Your task to perform on an android device: change alarm snooze length Image 0: 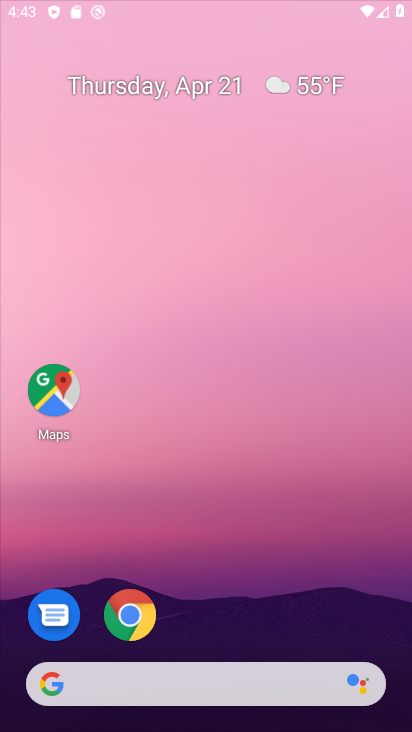
Step 0: drag from (277, 554) to (222, 10)
Your task to perform on an android device: change alarm snooze length Image 1: 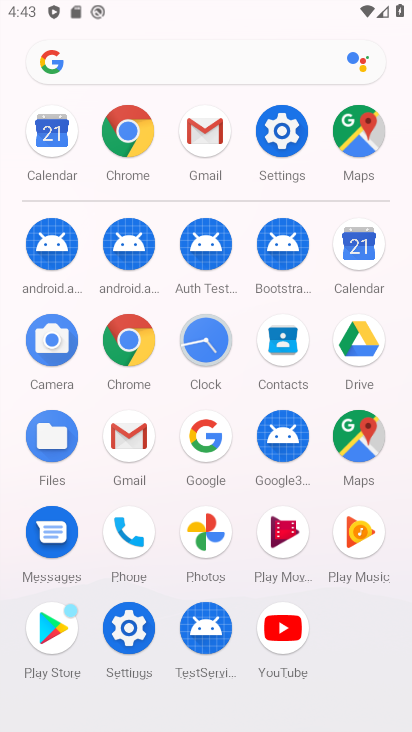
Step 1: drag from (16, 516) to (5, 279)
Your task to perform on an android device: change alarm snooze length Image 2: 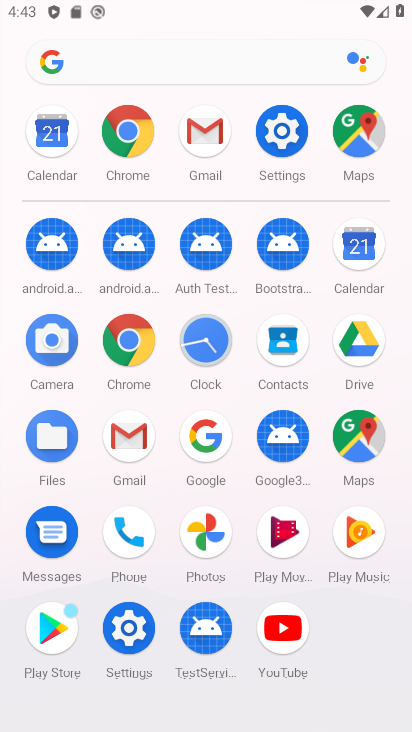
Step 2: click (199, 333)
Your task to perform on an android device: change alarm snooze length Image 3: 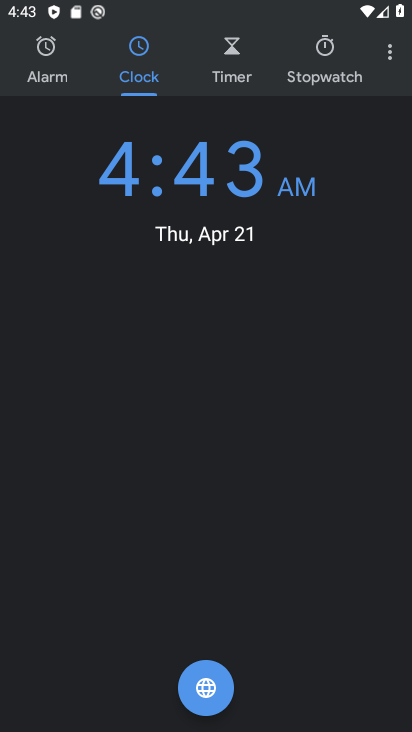
Step 3: click (51, 66)
Your task to perform on an android device: change alarm snooze length Image 4: 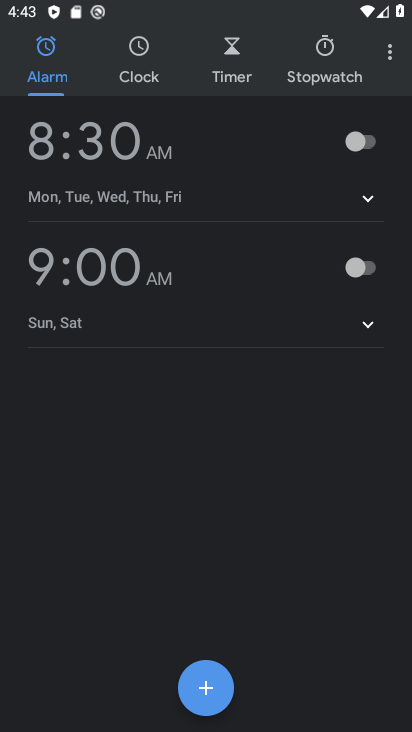
Step 4: click (392, 56)
Your task to perform on an android device: change alarm snooze length Image 5: 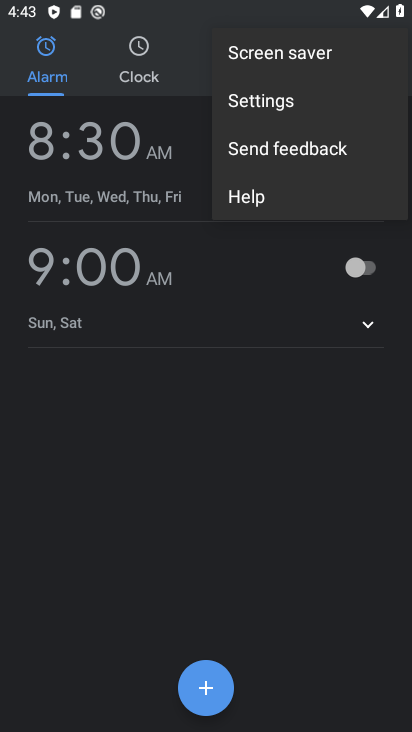
Step 5: click (323, 99)
Your task to perform on an android device: change alarm snooze length Image 6: 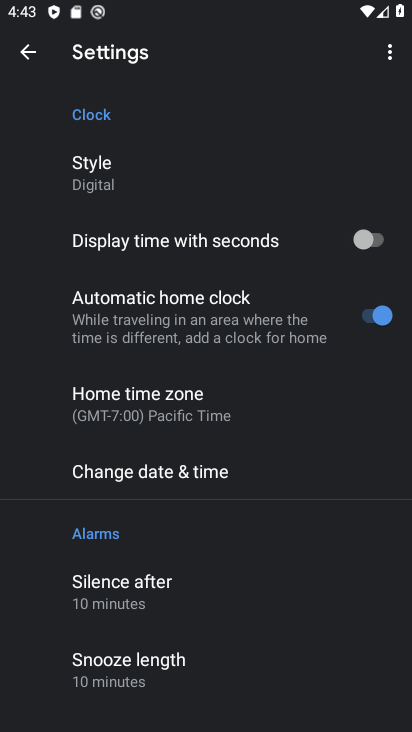
Step 6: click (157, 666)
Your task to perform on an android device: change alarm snooze length Image 7: 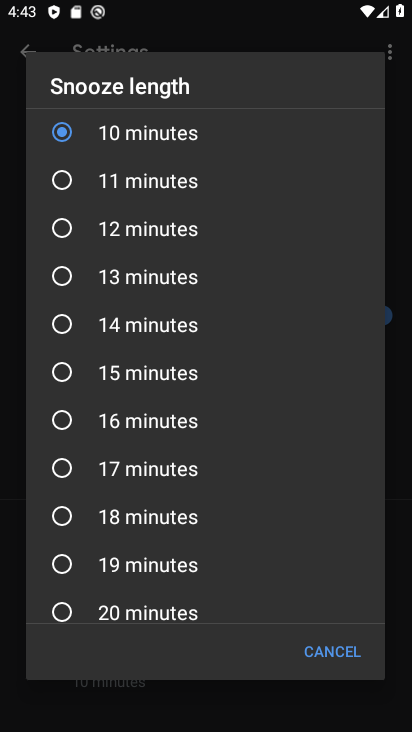
Step 7: click (96, 177)
Your task to perform on an android device: change alarm snooze length Image 8: 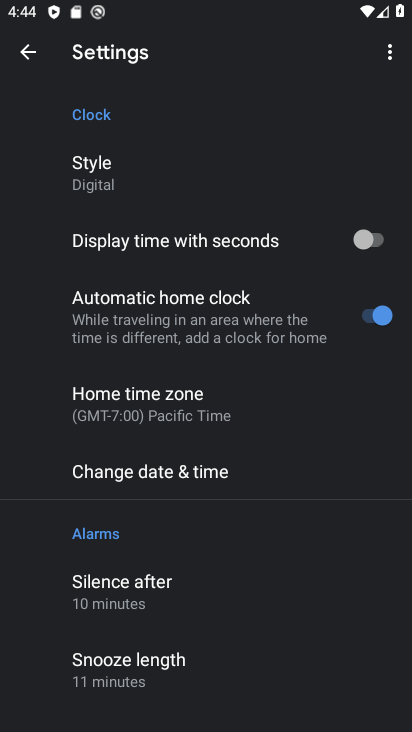
Step 8: task complete